Your task to perform on an android device: turn off data saver in the chrome app Image 0: 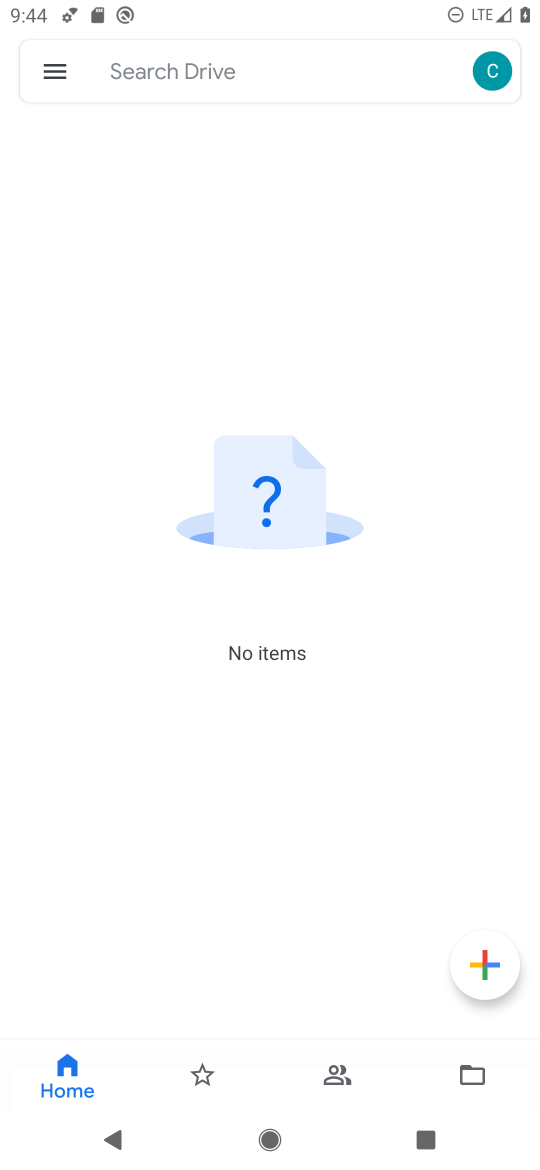
Step 0: press home button
Your task to perform on an android device: turn off data saver in the chrome app Image 1: 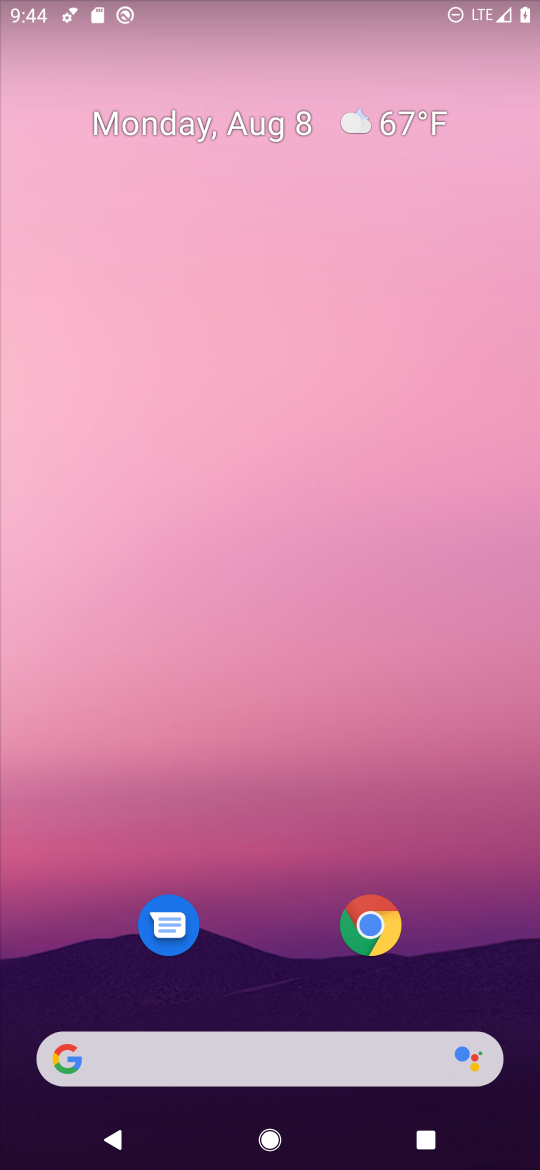
Step 1: click (361, 914)
Your task to perform on an android device: turn off data saver in the chrome app Image 2: 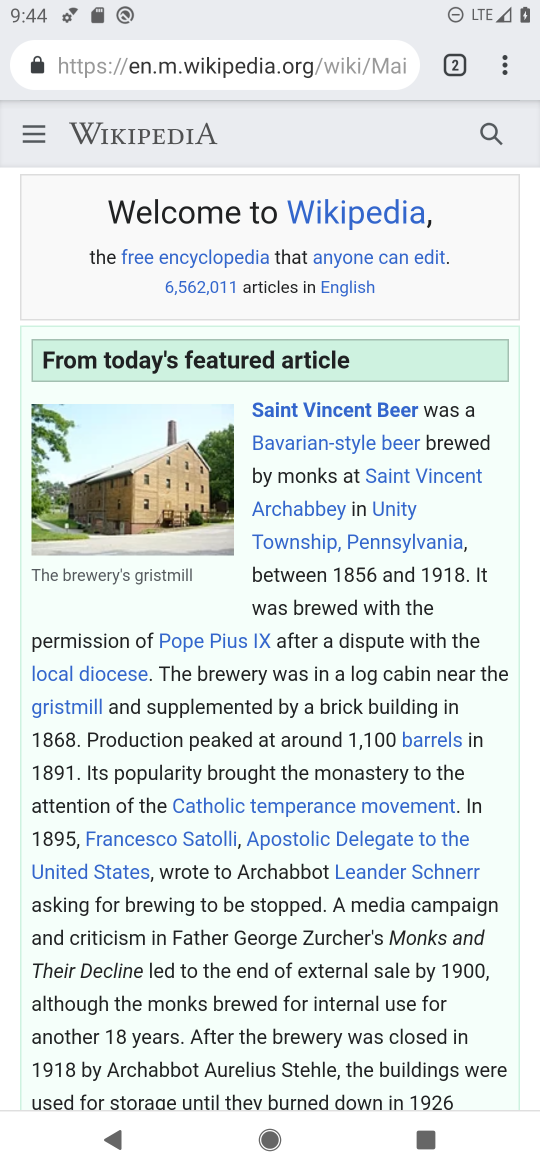
Step 2: drag from (504, 64) to (269, 861)
Your task to perform on an android device: turn off data saver in the chrome app Image 3: 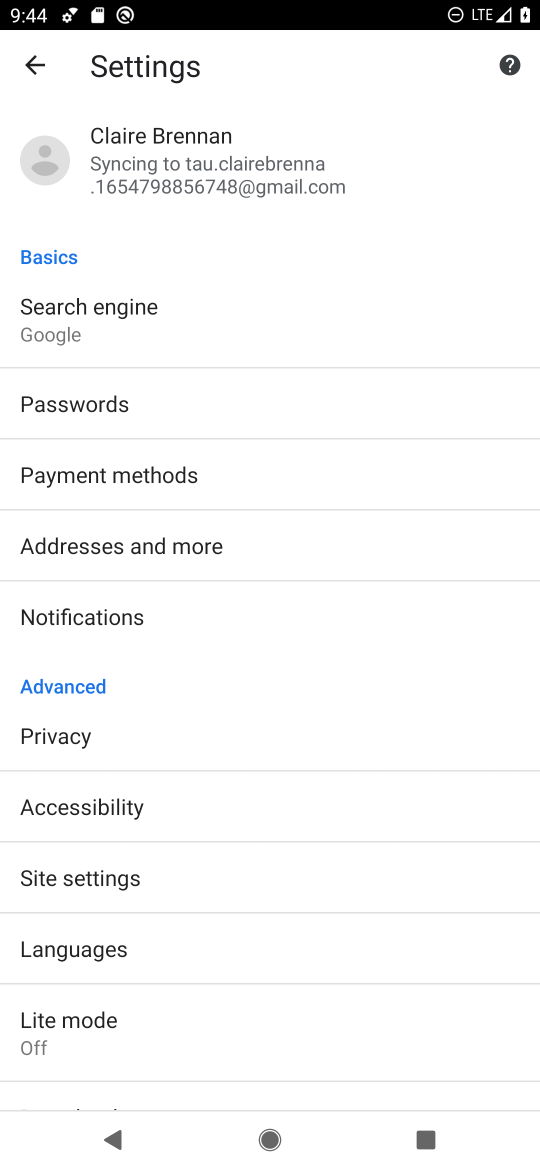
Step 3: drag from (182, 1043) to (275, 617)
Your task to perform on an android device: turn off data saver in the chrome app Image 4: 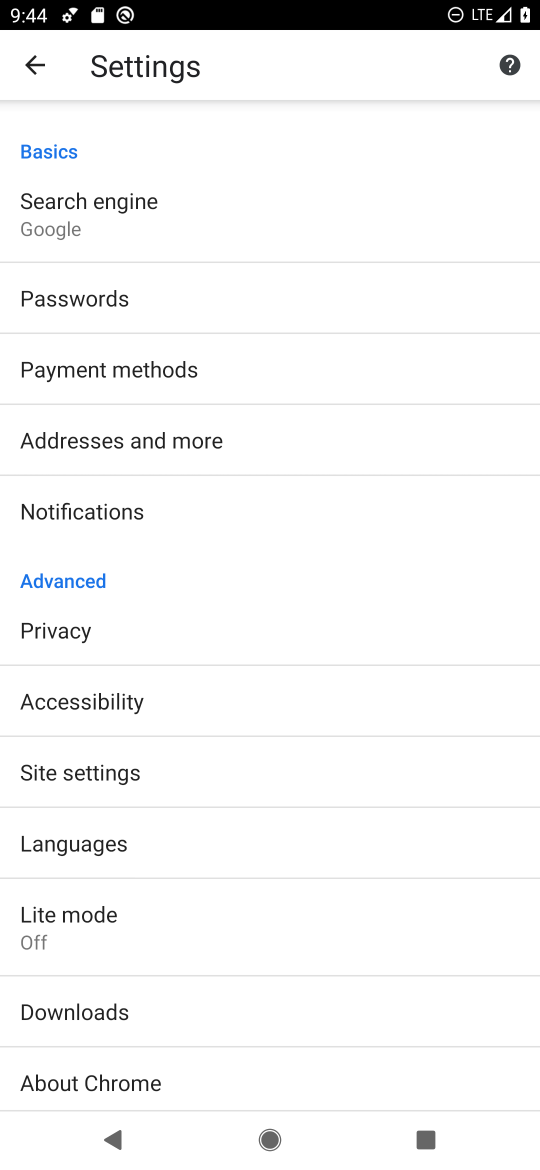
Step 4: click (29, 913)
Your task to perform on an android device: turn off data saver in the chrome app Image 5: 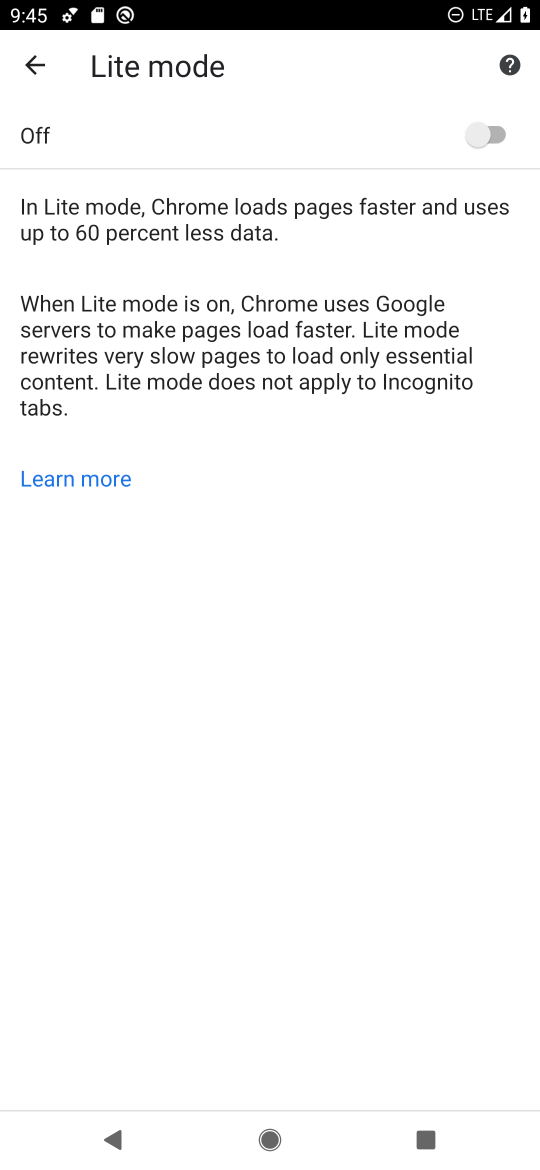
Step 5: task complete